Your task to perform on an android device: turn on showing notifications on the lock screen Image 0: 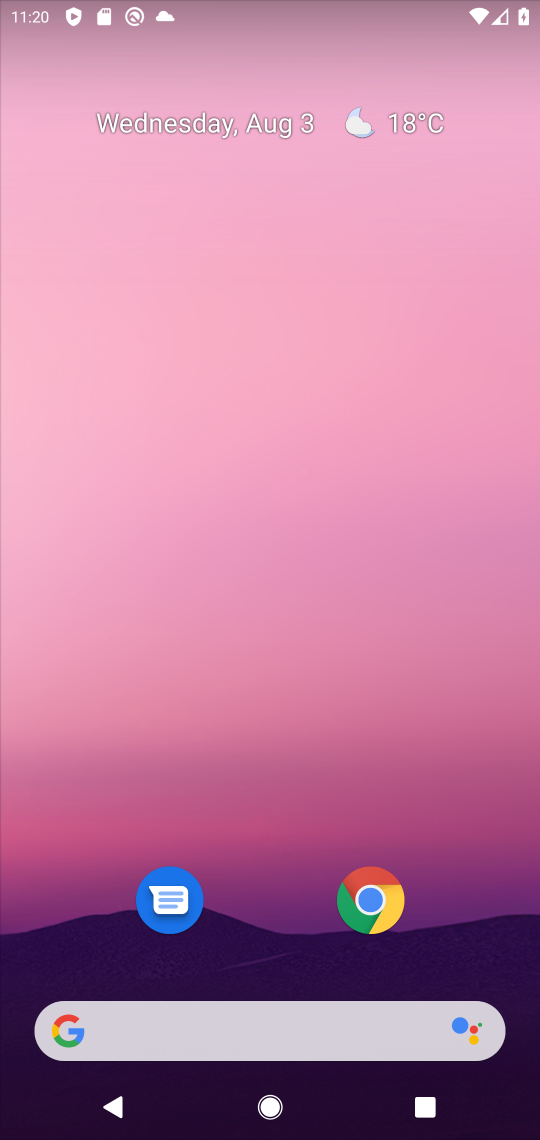
Step 0: drag from (312, 861) to (288, 37)
Your task to perform on an android device: turn on showing notifications on the lock screen Image 1: 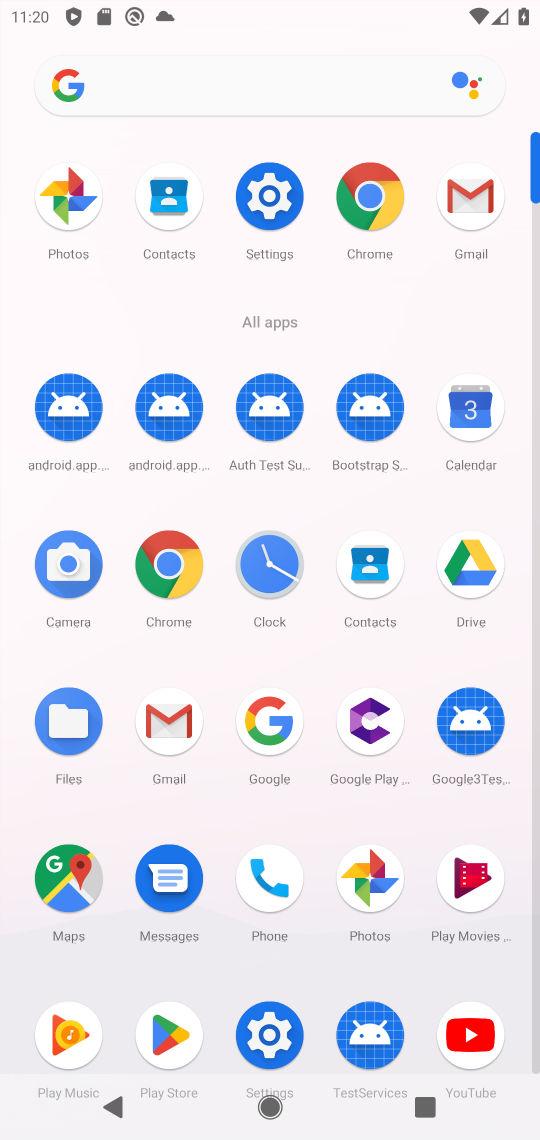
Step 1: click (253, 209)
Your task to perform on an android device: turn on showing notifications on the lock screen Image 2: 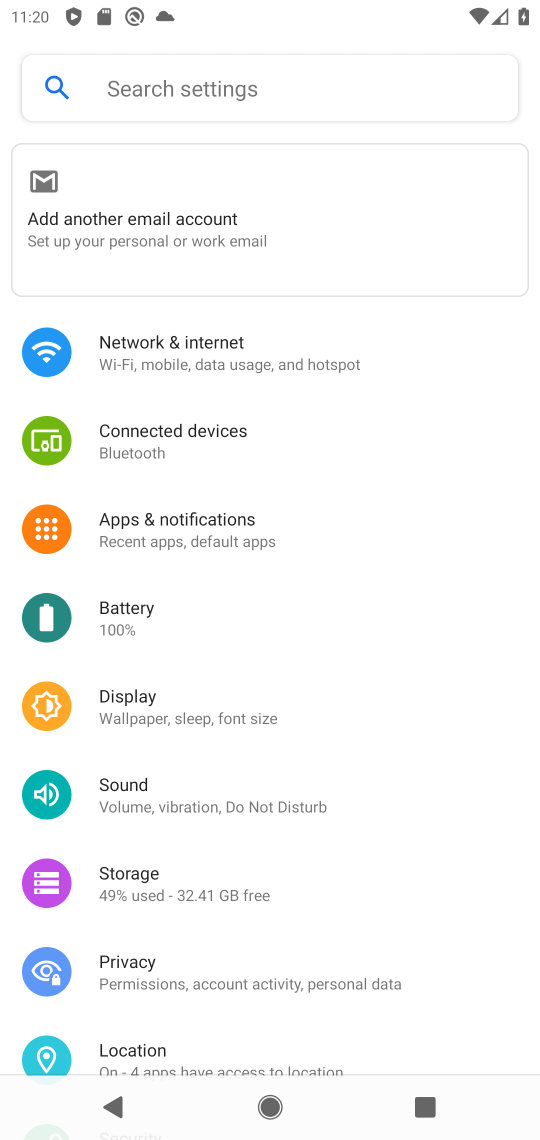
Step 2: click (234, 521)
Your task to perform on an android device: turn on showing notifications on the lock screen Image 3: 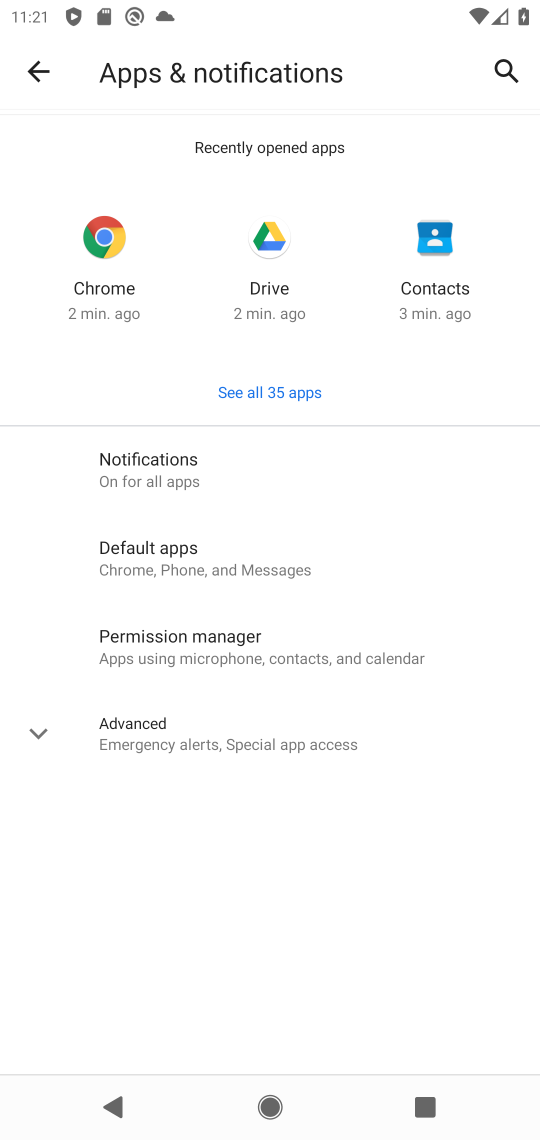
Step 3: click (158, 474)
Your task to perform on an android device: turn on showing notifications on the lock screen Image 4: 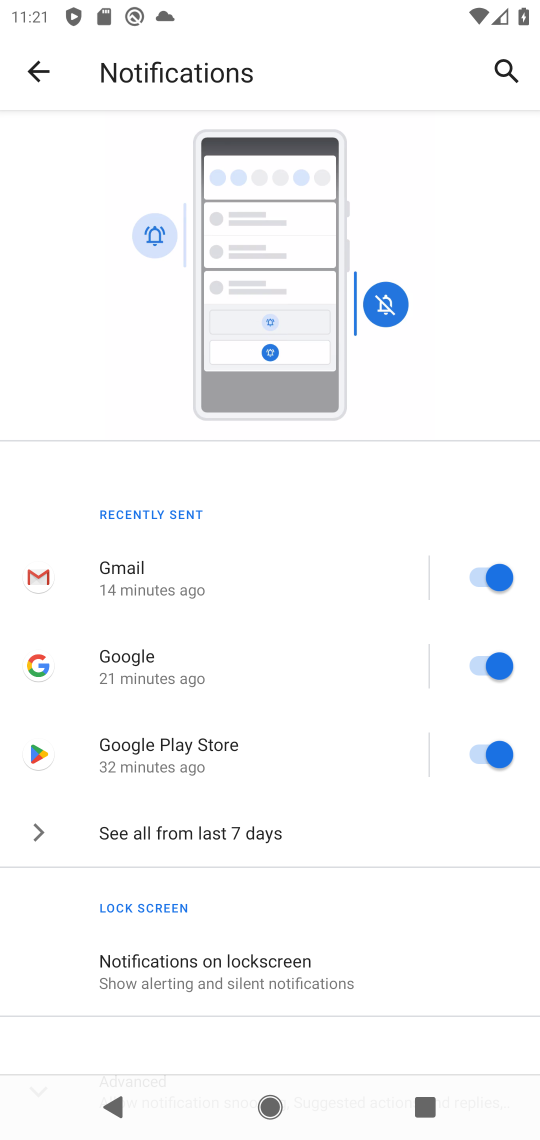
Step 4: click (292, 969)
Your task to perform on an android device: turn on showing notifications on the lock screen Image 5: 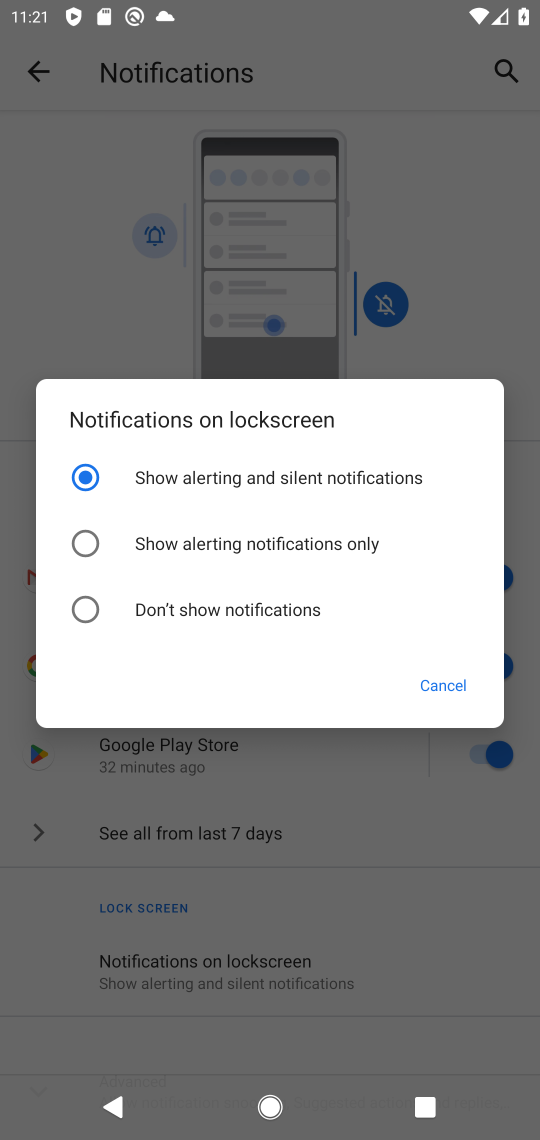
Step 5: task complete